Your task to perform on an android device: open app "Spotify" Image 0: 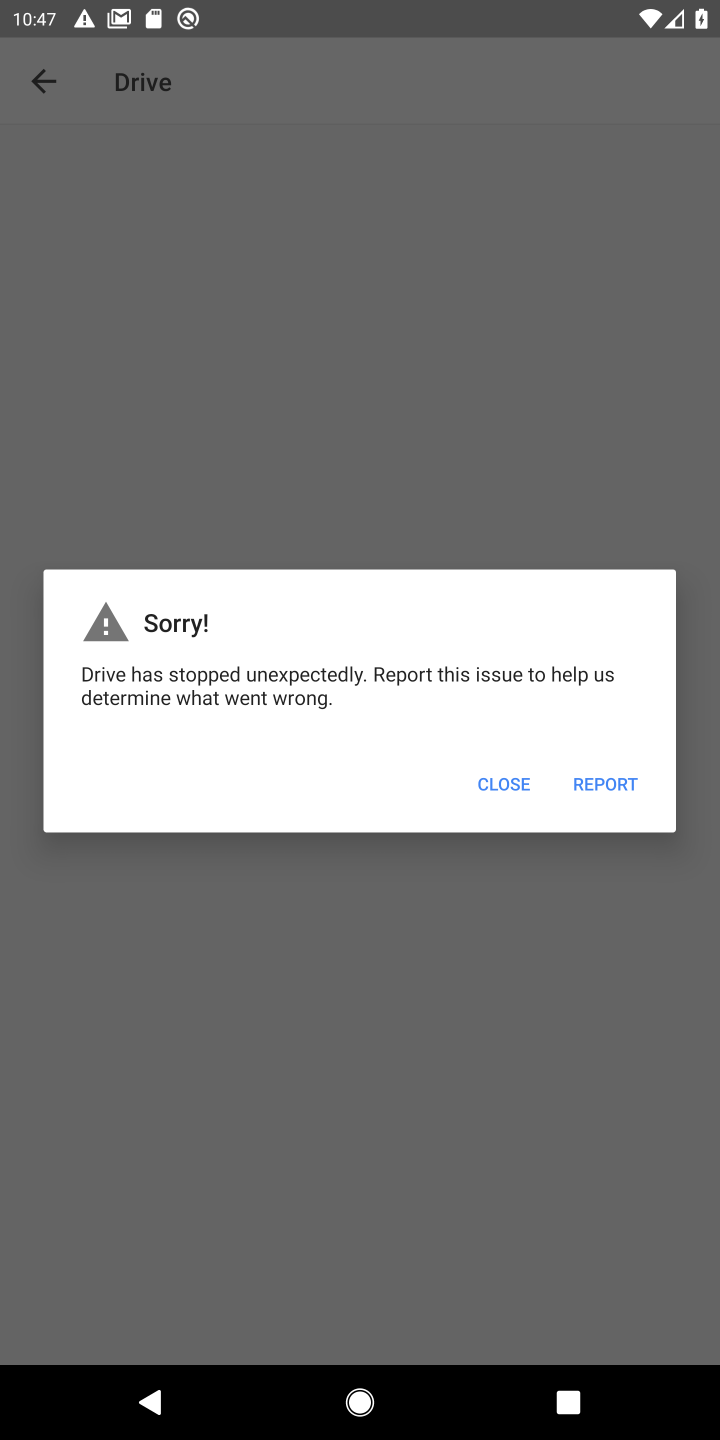
Step 0: press home button
Your task to perform on an android device: open app "Spotify" Image 1: 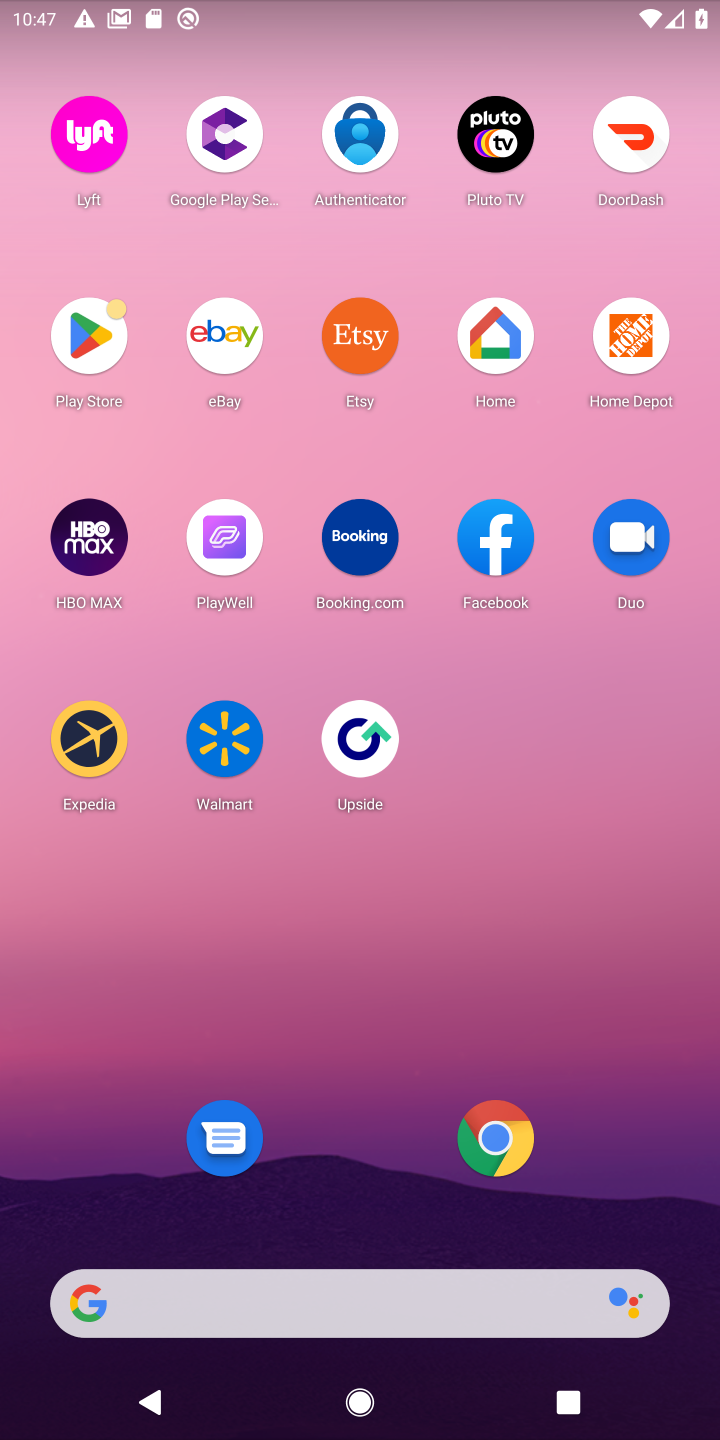
Step 1: click (91, 351)
Your task to perform on an android device: open app "Spotify" Image 2: 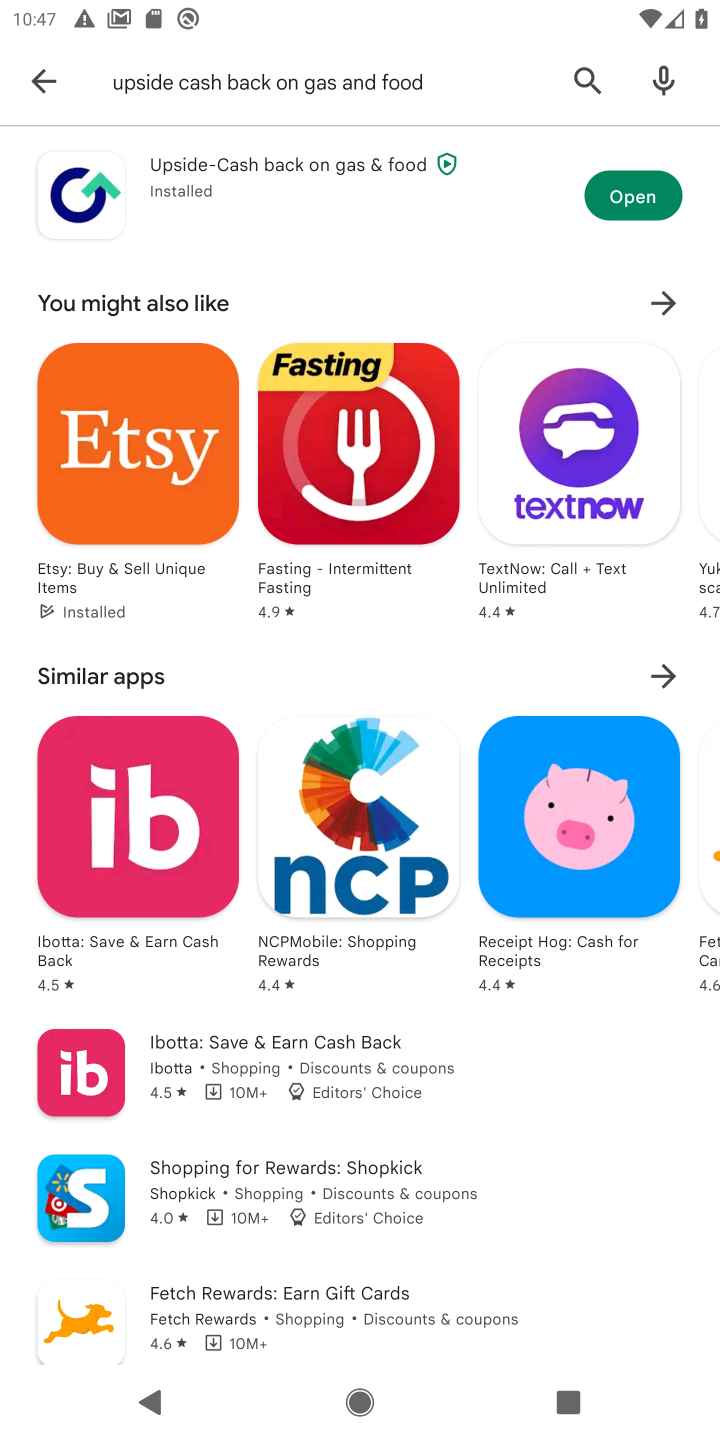
Step 2: click (582, 81)
Your task to perform on an android device: open app "Spotify" Image 3: 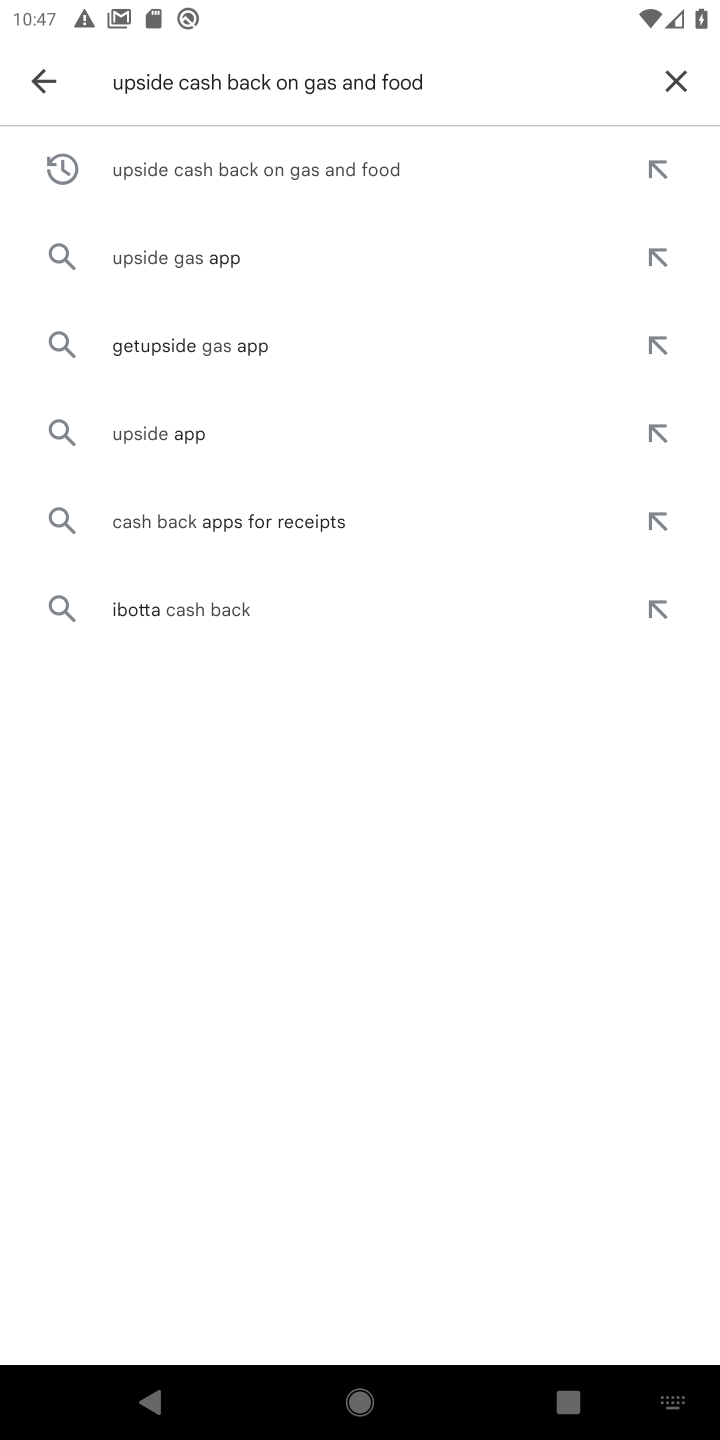
Step 3: click (677, 83)
Your task to perform on an android device: open app "Spotify" Image 4: 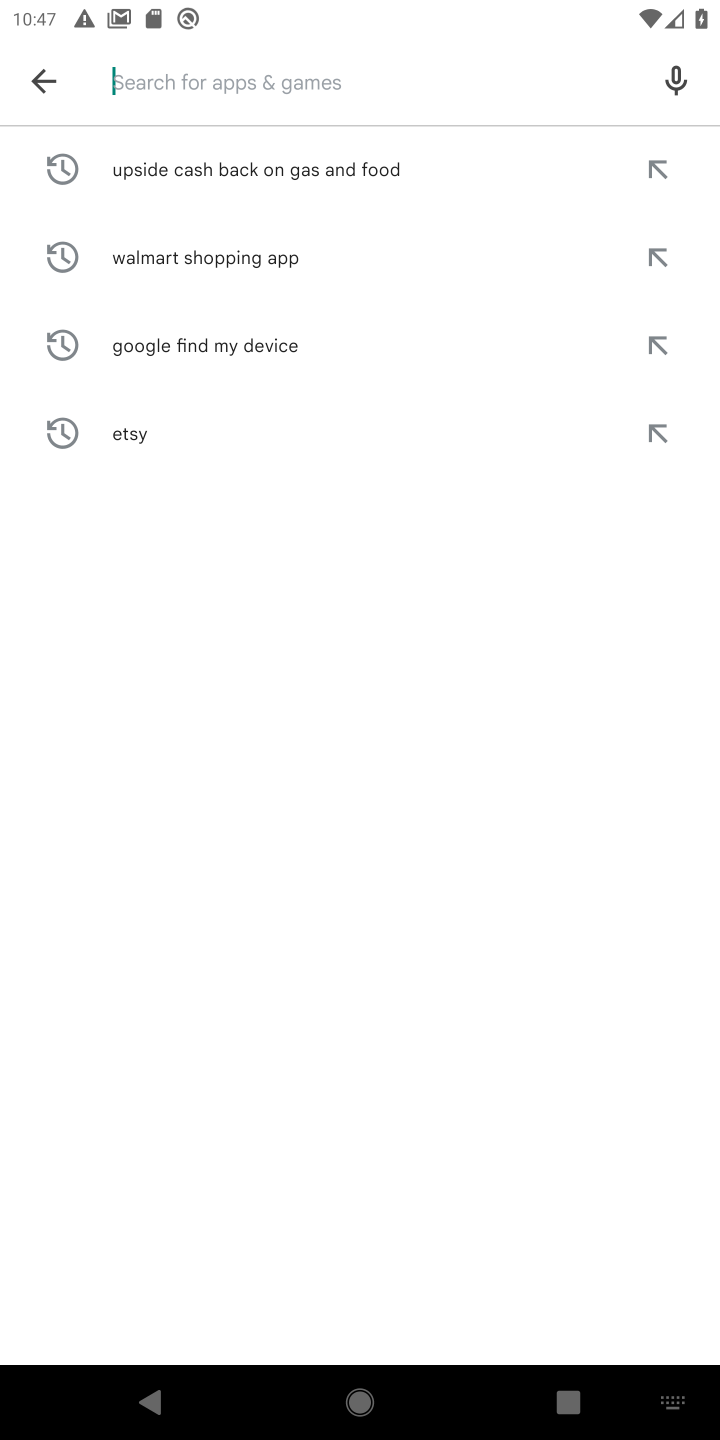
Step 4: type "spoti"
Your task to perform on an android device: open app "Spotify" Image 5: 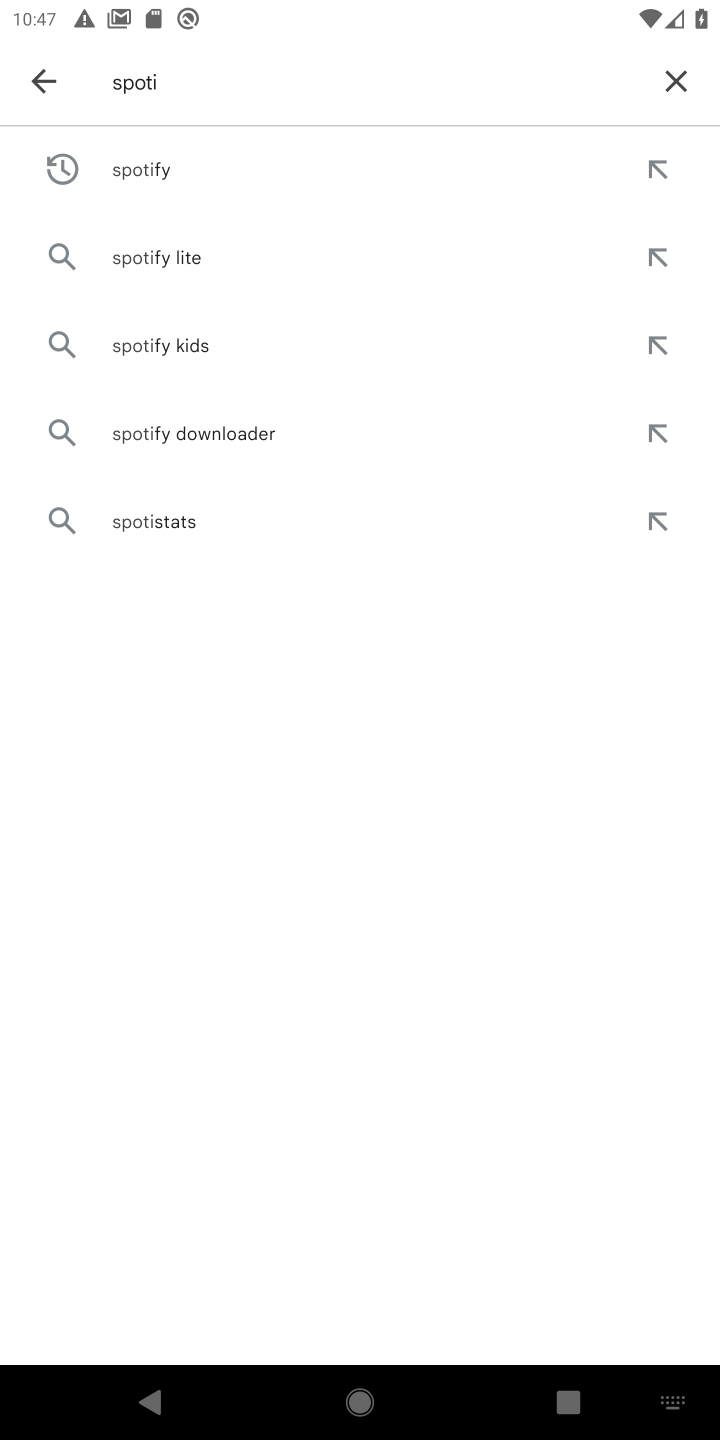
Step 5: click (159, 172)
Your task to perform on an android device: open app "Spotify" Image 6: 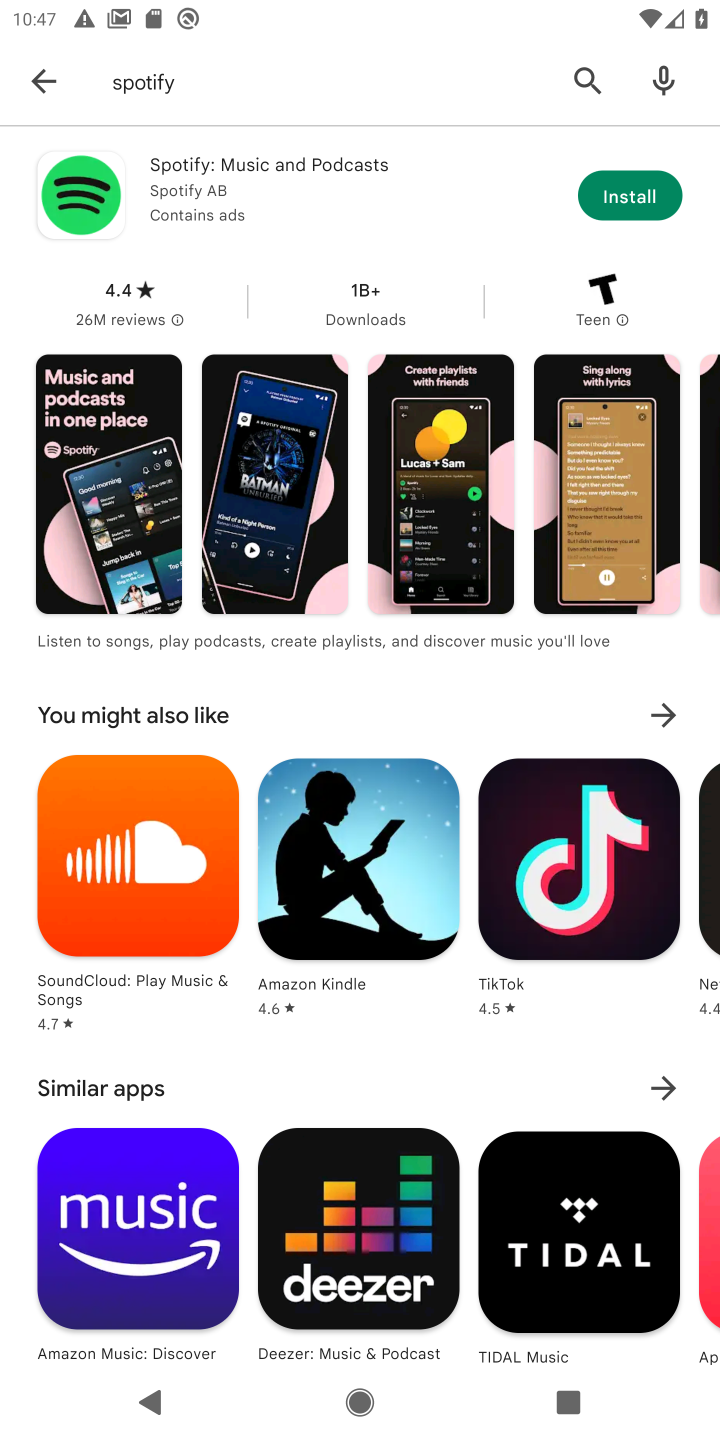
Step 6: click (640, 211)
Your task to perform on an android device: open app "Spotify" Image 7: 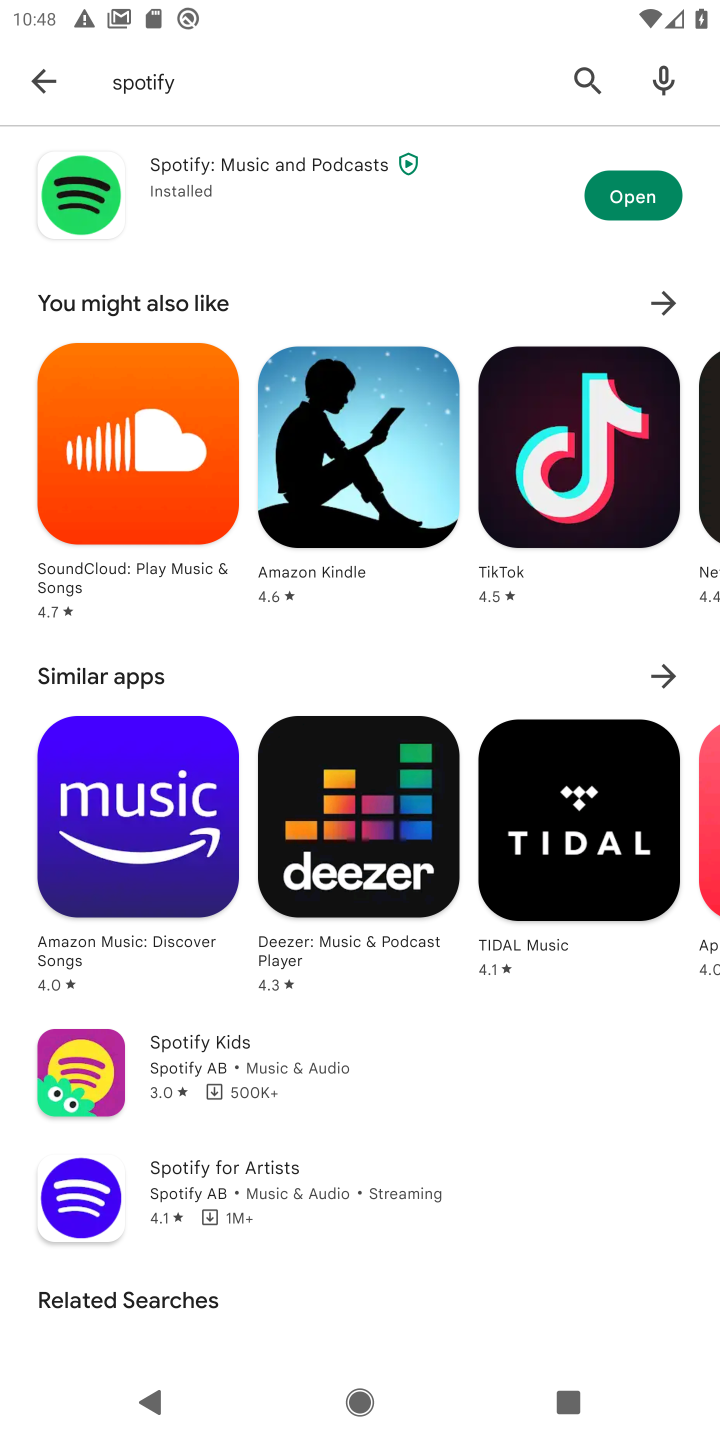
Step 7: click (629, 214)
Your task to perform on an android device: open app "Spotify" Image 8: 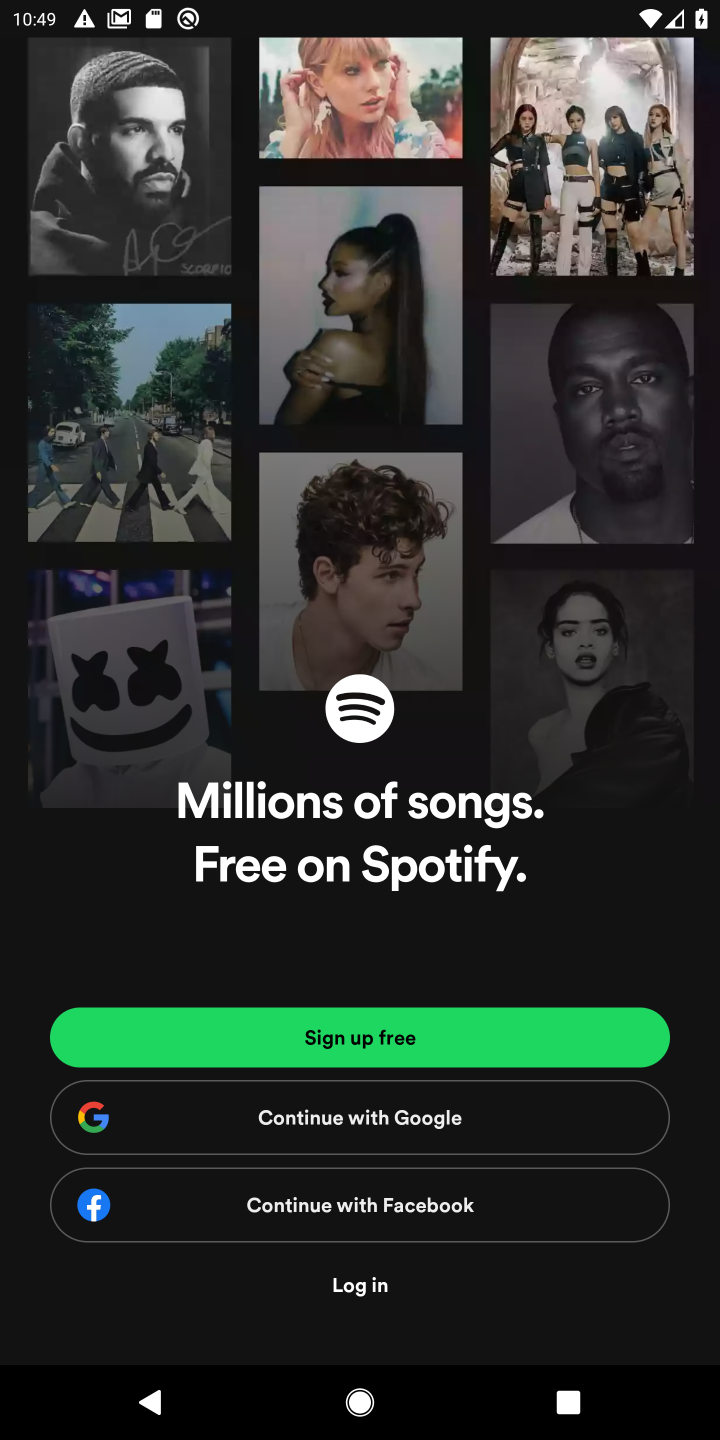
Step 8: task complete